Your task to perform on an android device: Go to sound settings Image 0: 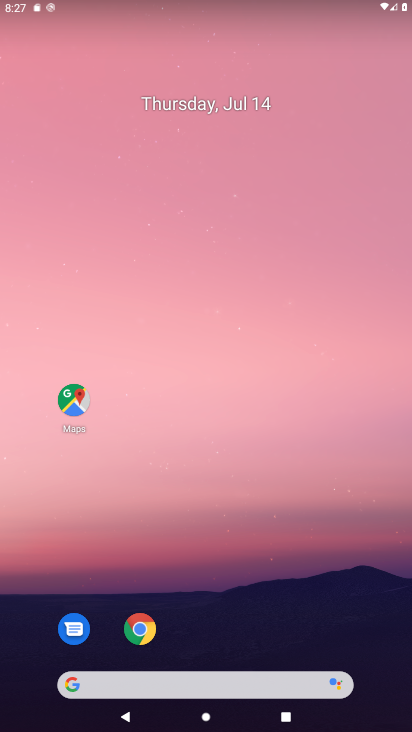
Step 0: drag from (200, 646) to (211, 59)
Your task to perform on an android device: Go to sound settings Image 1: 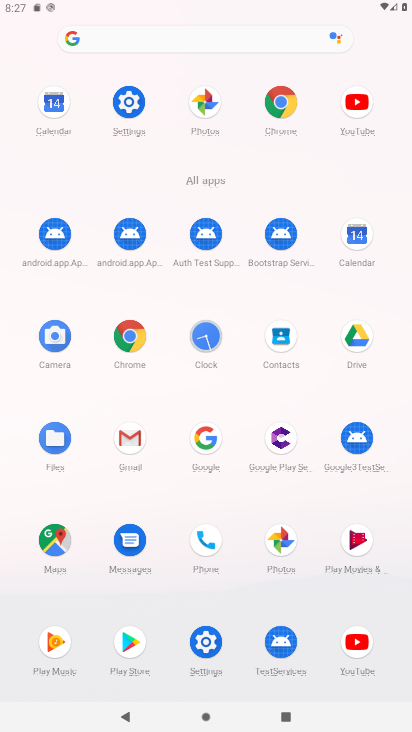
Step 1: click (188, 644)
Your task to perform on an android device: Go to sound settings Image 2: 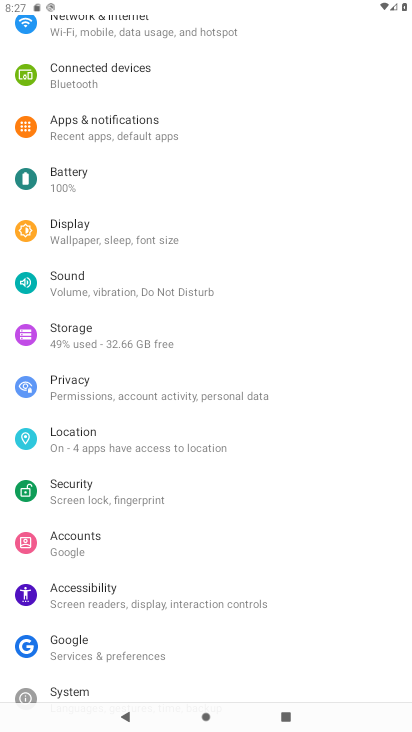
Step 2: click (139, 285)
Your task to perform on an android device: Go to sound settings Image 3: 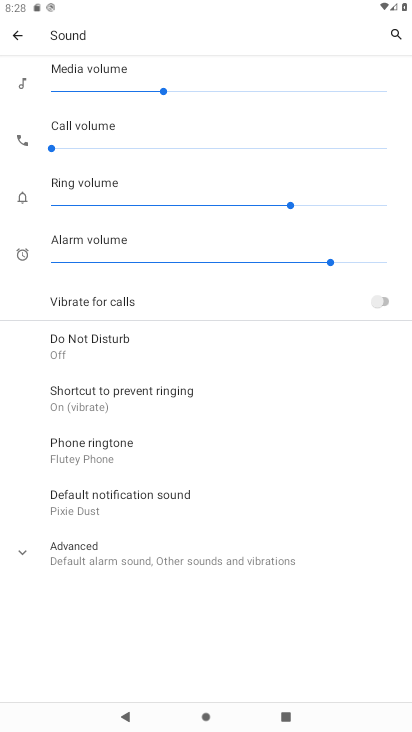
Step 3: task complete